Your task to perform on an android device: toggle notifications settings in the gmail app Image 0: 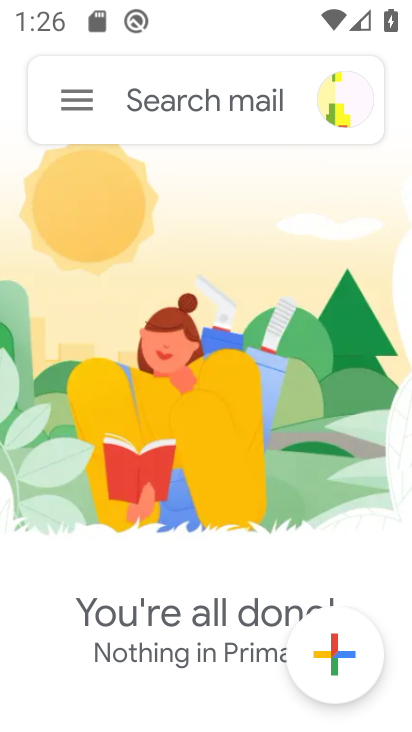
Step 0: press home button
Your task to perform on an android device: toggle notifications settings in the gmail app Image 1: 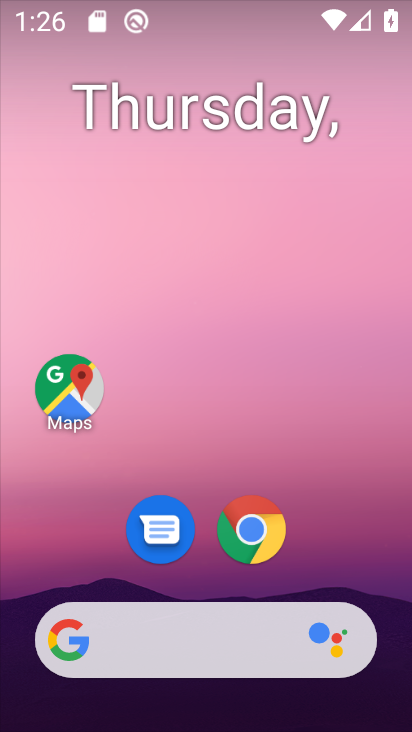
Step 1: drag from (364, 554) to (297, 98)
Your task to perform on an android device: toggle notifications settings in the gmail app Image 2: 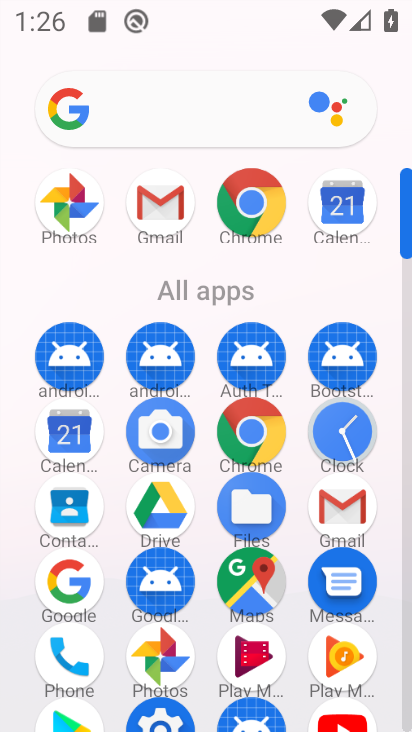
Step 2: click (337, 515)
Your task to perform on an android device: toggle notifications settings in the gmail app Image 3: 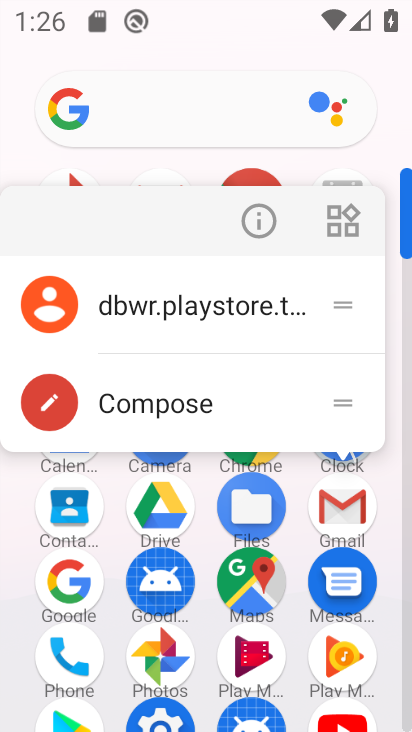
Step 3: click (343, 505)
Your task to perform on an android device: toggle notifications settings in the gmail app Image 4: 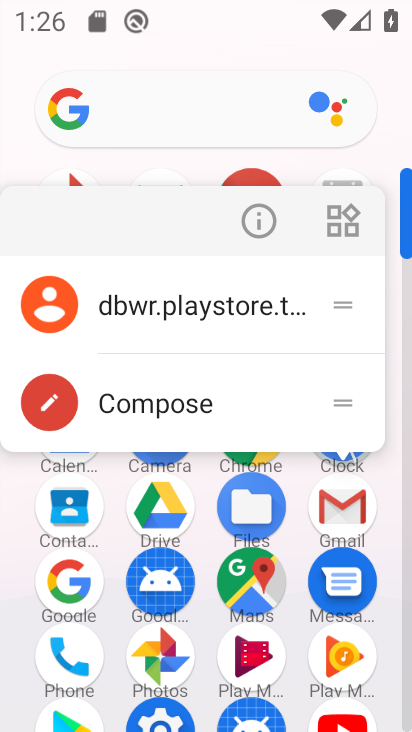
Step 4: click (343, 515)
Your task to perform on an android device: toggle notifications settings in the gmail app Image 5: 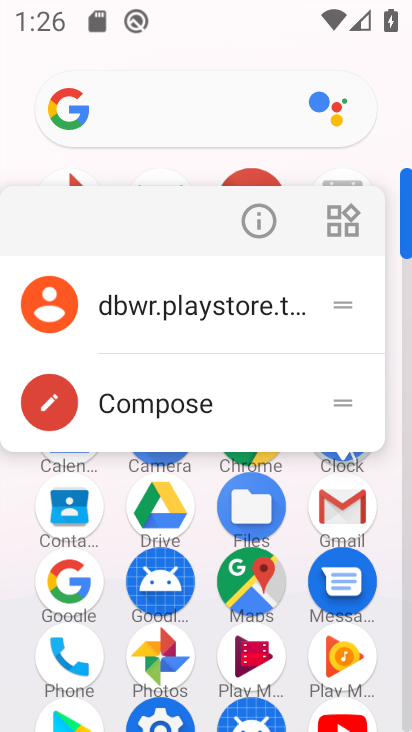
Step 5: click (380, 540)
Your task to perform on an android device: toggle notifications settings in the gmail app Image 6: 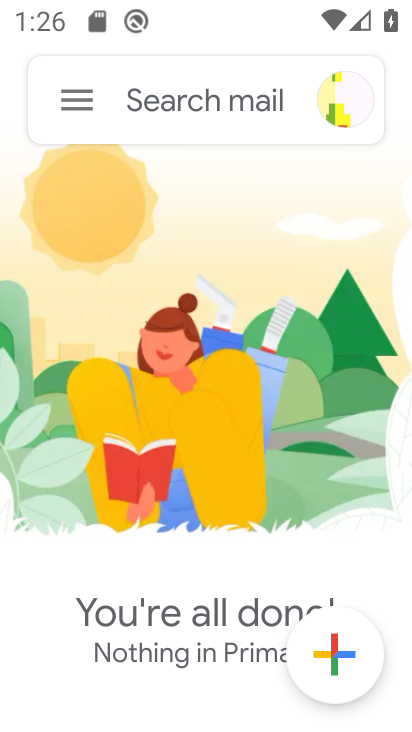
Step 6: click (68, 104)
Your task to perform on an android device: toggle notifications settings in the gmail app Image 7: 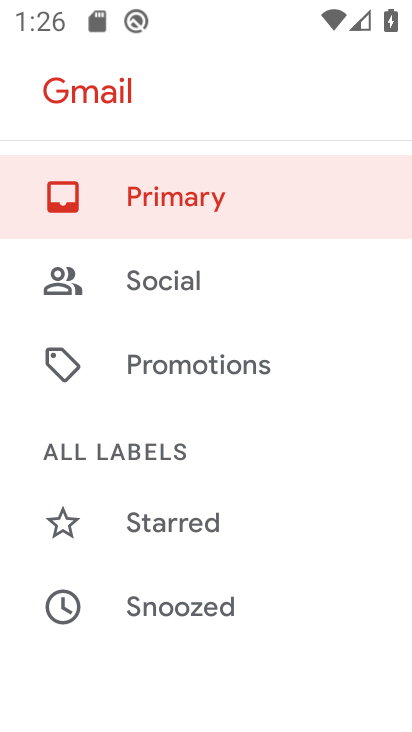
Step 7: drag from (213, 590) to (224, 202)
Your task to perform on an android device: toggle notifications settings in the gmail app Image 8: 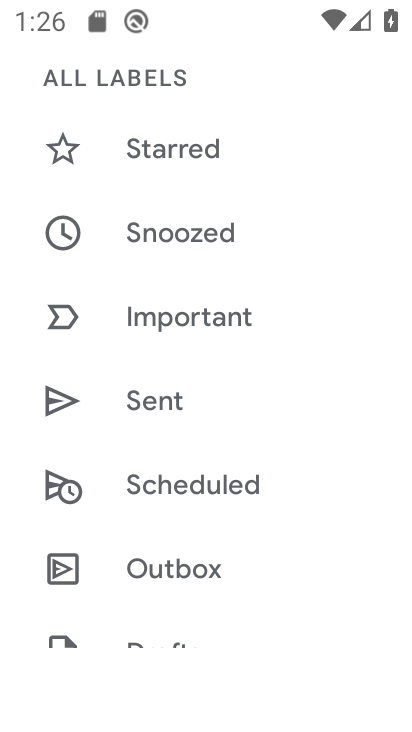
Step 8: drag from (219, 597) to (267, 188)
Your task to perform on an android device: toggle notifications settings in the gmail app Image 9: 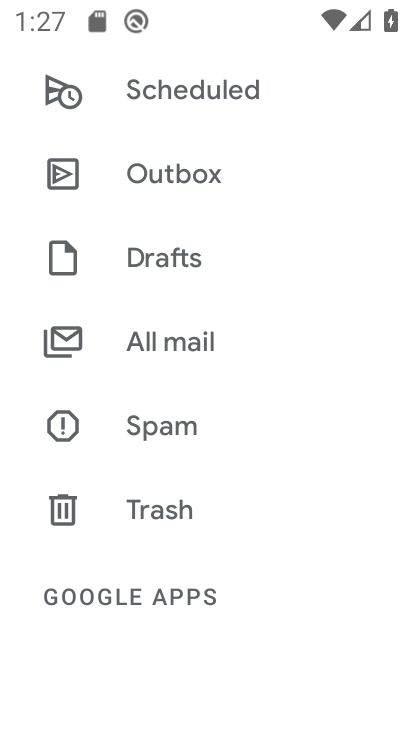
Step 9: drag from (192, 591) to (270, 298)
Your task to perform on an android device: toggle notifications settings in the gmail app Image 10: 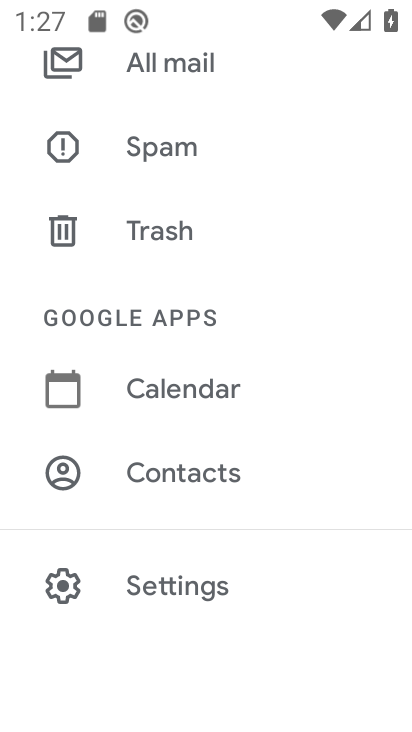
Step 10: click (185, 569)
Your task to perform on an android device: toggle notifications settings in the gmail app Image 11: 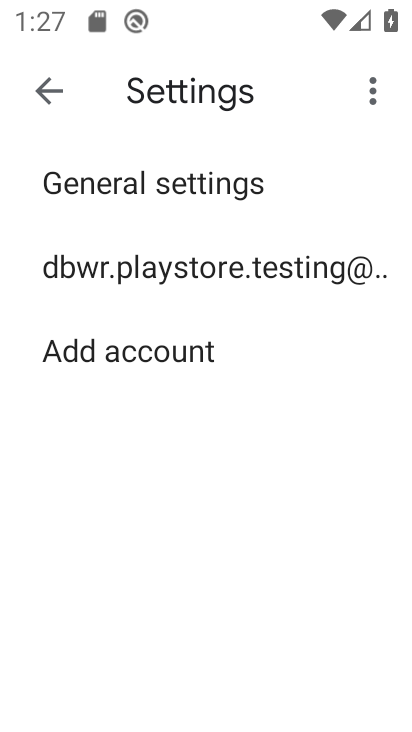
Step 11: click (229, 271)
Your task to perform on an android device: toggle notifications settings in the gmail app Image 12: 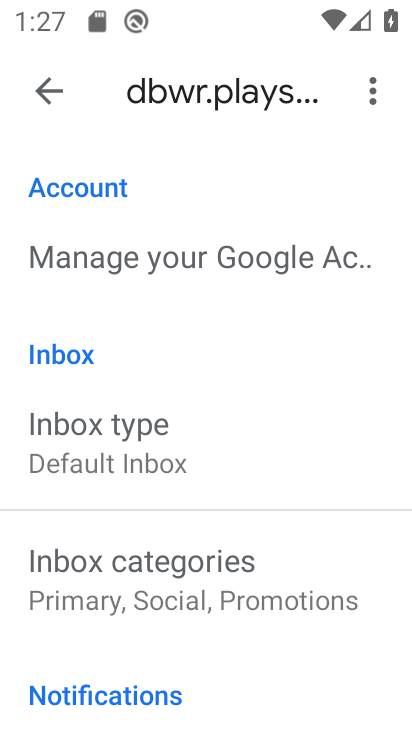
Step 12: drag from (233, 611) to (212, 248)
Your task to perform on an android device: toggle notifications settings in the gmail app Image 13: 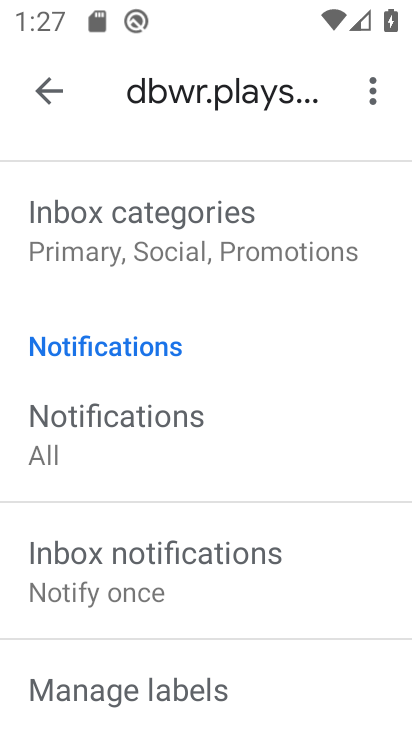
Step 13: drag from (191, 625) to (263, 268)
Your task to perform on an android device: toggle notifications settings in the gmail app Image 14: 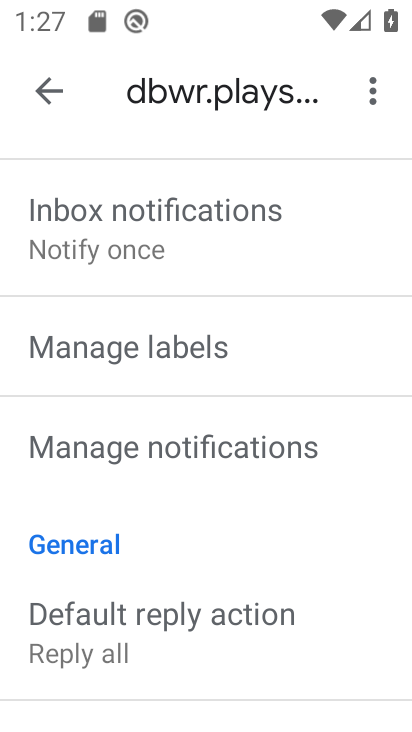
Step 14: click (217, 448)
Your task to perform on an android device: toggle notifications settings in the gmail app Image 15: 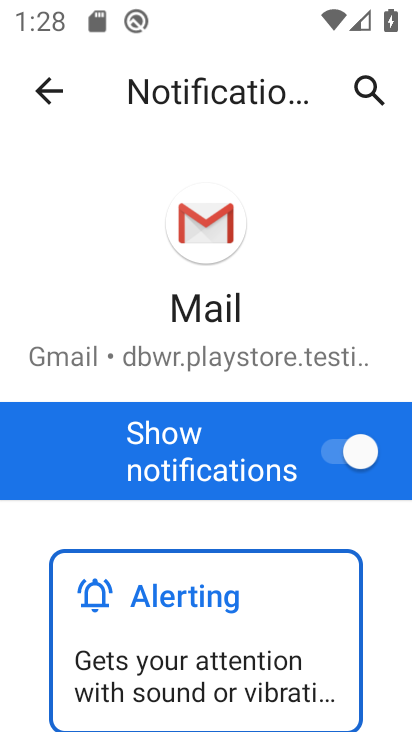
Step 15: click (312, 456)
Your task to perform on an android device: toggle notifications settings in the gmail app Image 16: 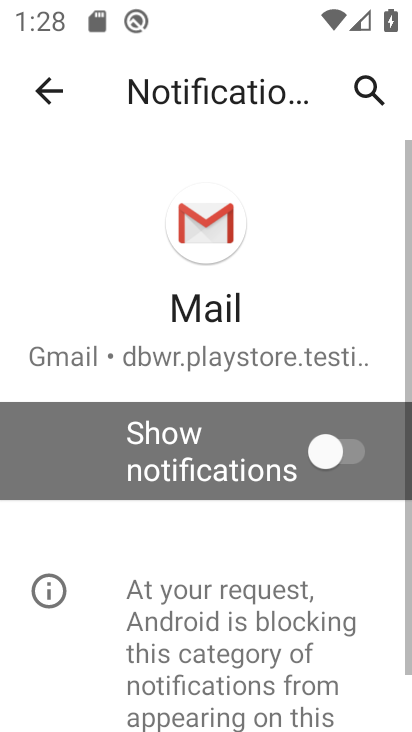
Step 16: task complete